Your task to perform on an android device: What's the weather today? Image 0: 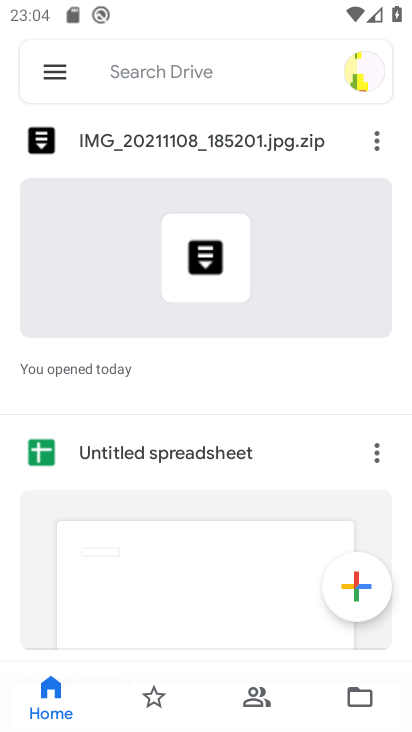
Step 0: press home button
Your task to perform on an android device: What's the weather today? Image 1: 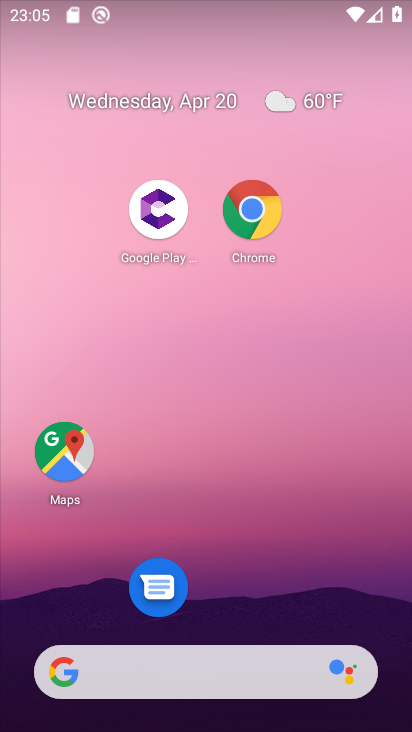
Step 1: click (317, 97)
Your task to perform on an android device: What's the weather today? Image 2: 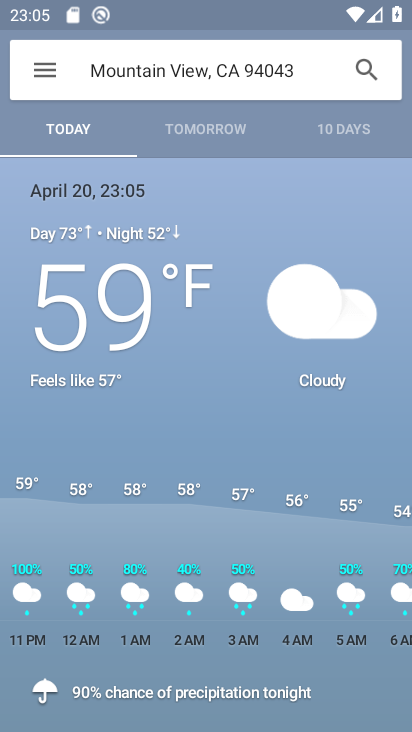
Step 2: task complete